Your task to perform on an android device: Clear the cart on ebay. Add "apple airpods" to the cart on ebay, then select checkout. Image 0: 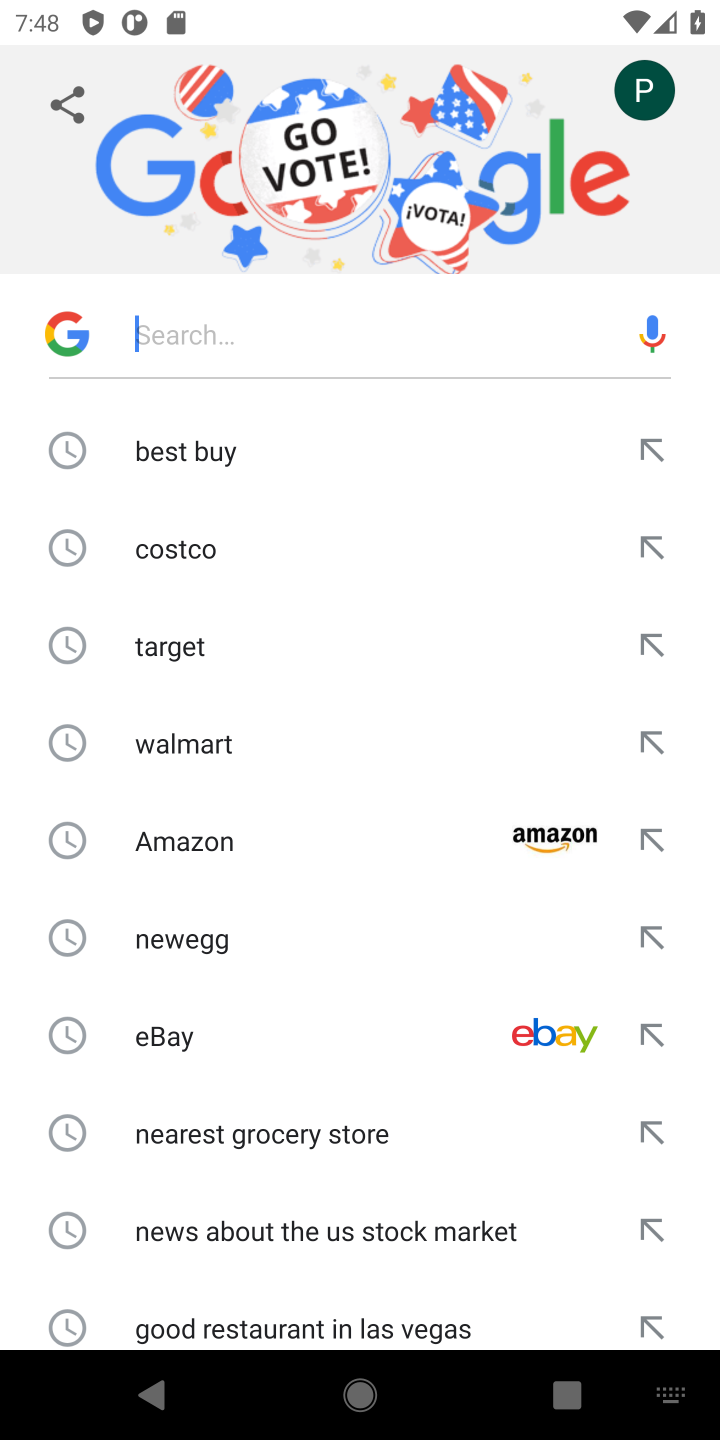
Step 0: click (183, 1030)
Your task to perform on an android device: Clear the cart on ebay. Add "apple airpods" to the cart on ebay, then select checkout. Image 1: 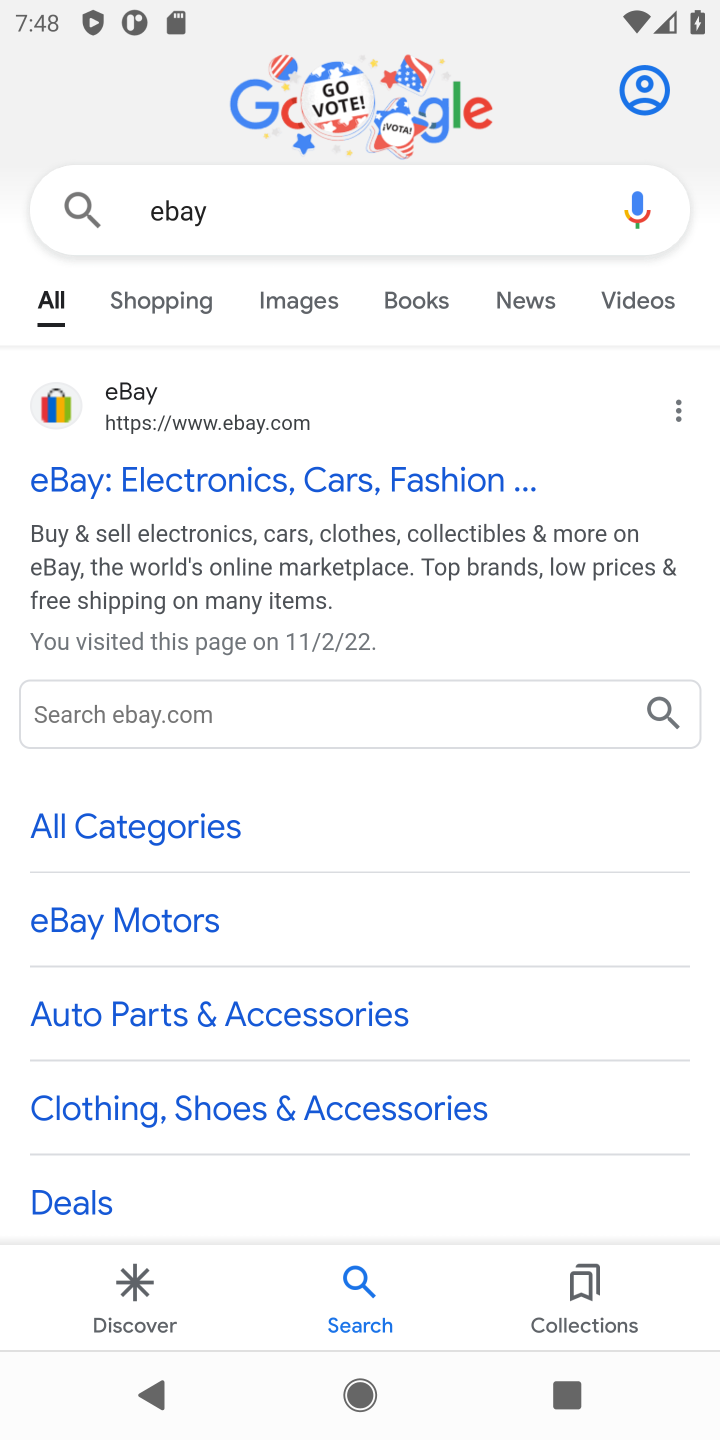
Step 1: click (385, 473)
Your task to perform on an android device: Clear the cart on ebay. Add "apple airpods" to the cart on ebay, then select checkout. Image 2: 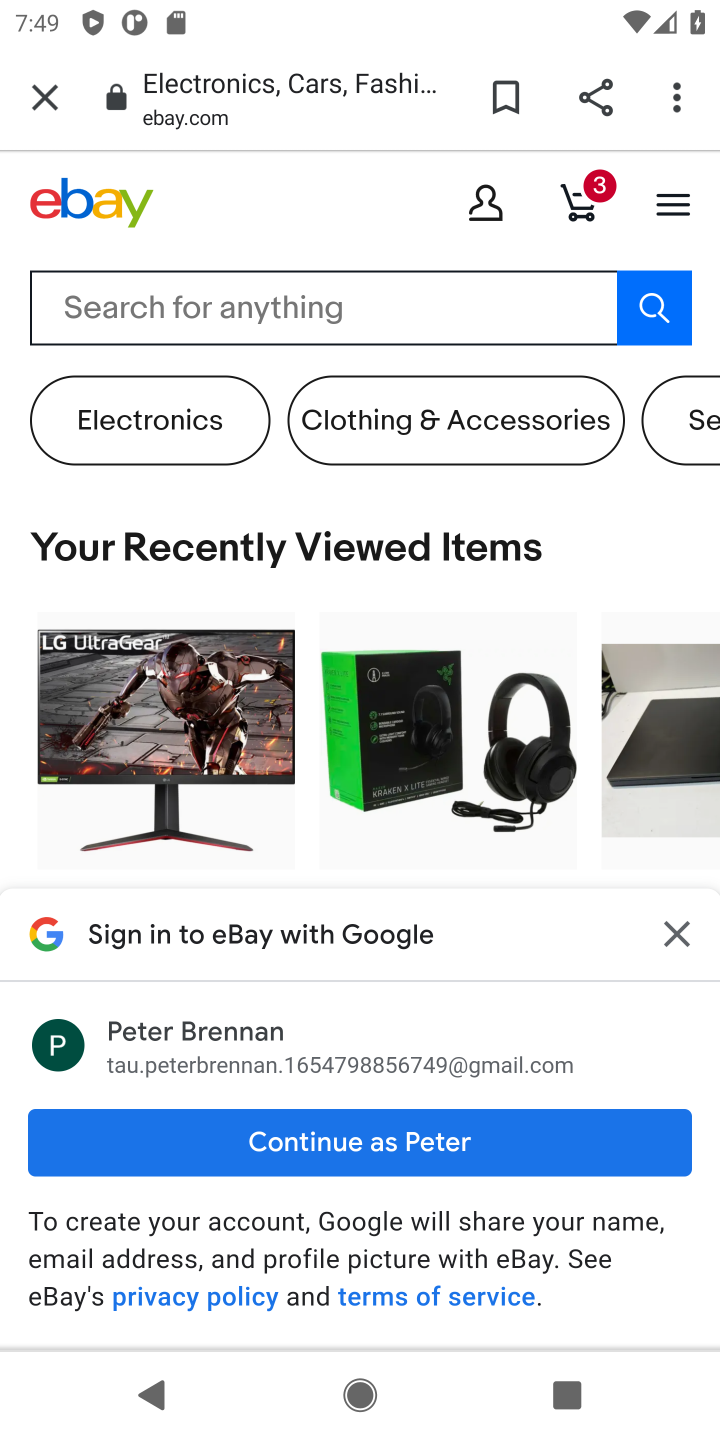
Step 2: click (592, 198)
Your task to perform on an android device: Clear the cart on ebay. Add "apple airpods" to the cart on ebay, then select checkout. Image 3: 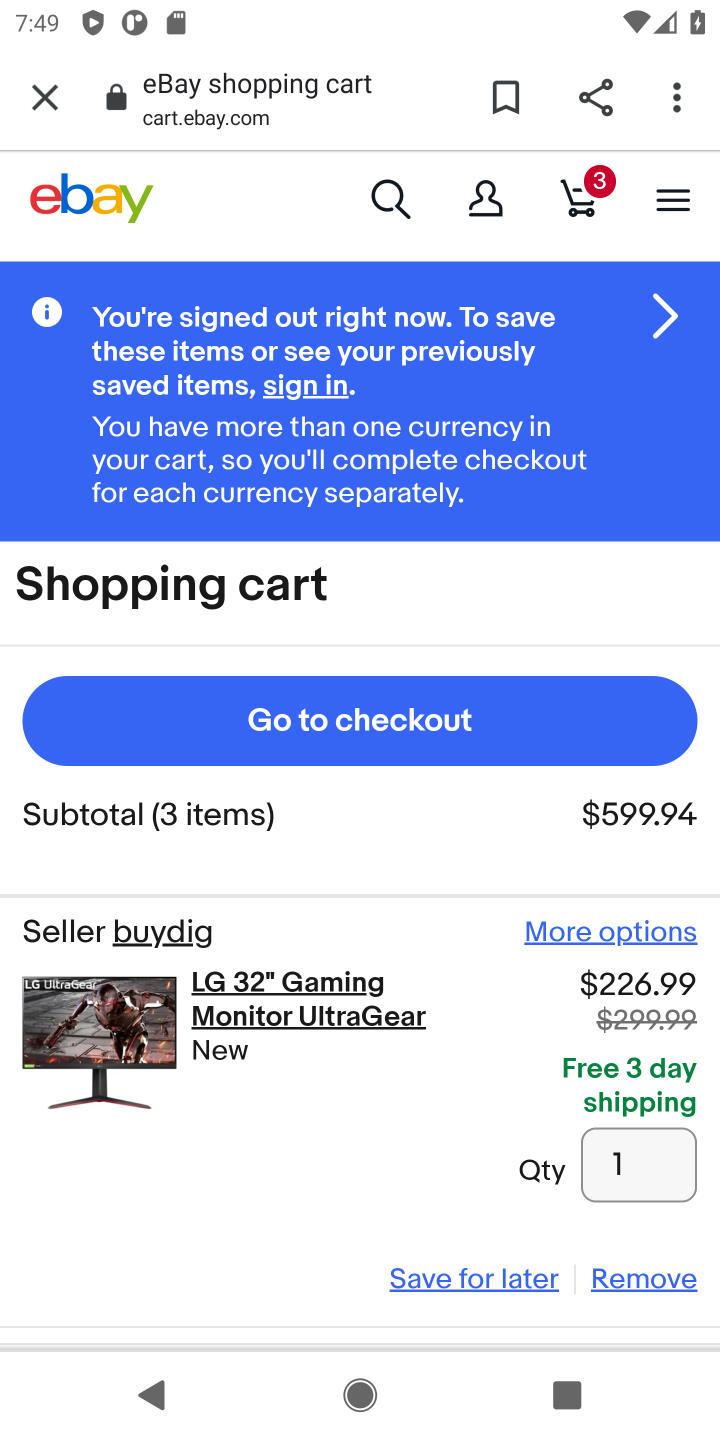
Step 3: click (651, 1271)
Your task to perform on an android device: Clear the cart on ebay. Add "apple airpods" to the cart on ebay, then select checkout. Image 4: 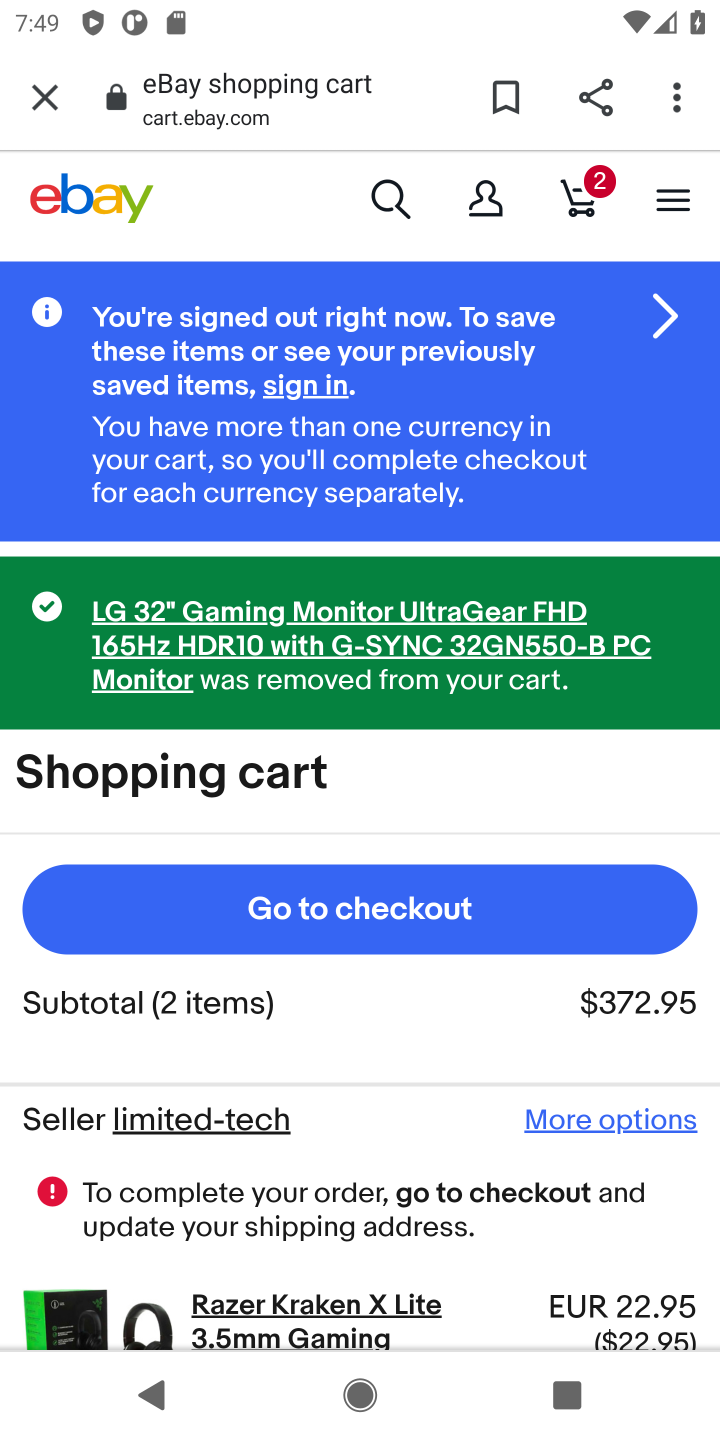
Step 4: drag from (498, 1194) to (630, 222)
Your task to perform on an android device: Clear the cart on ebay. Add "apple airpods" to the cart on ebay, then select checkout. Image 5: 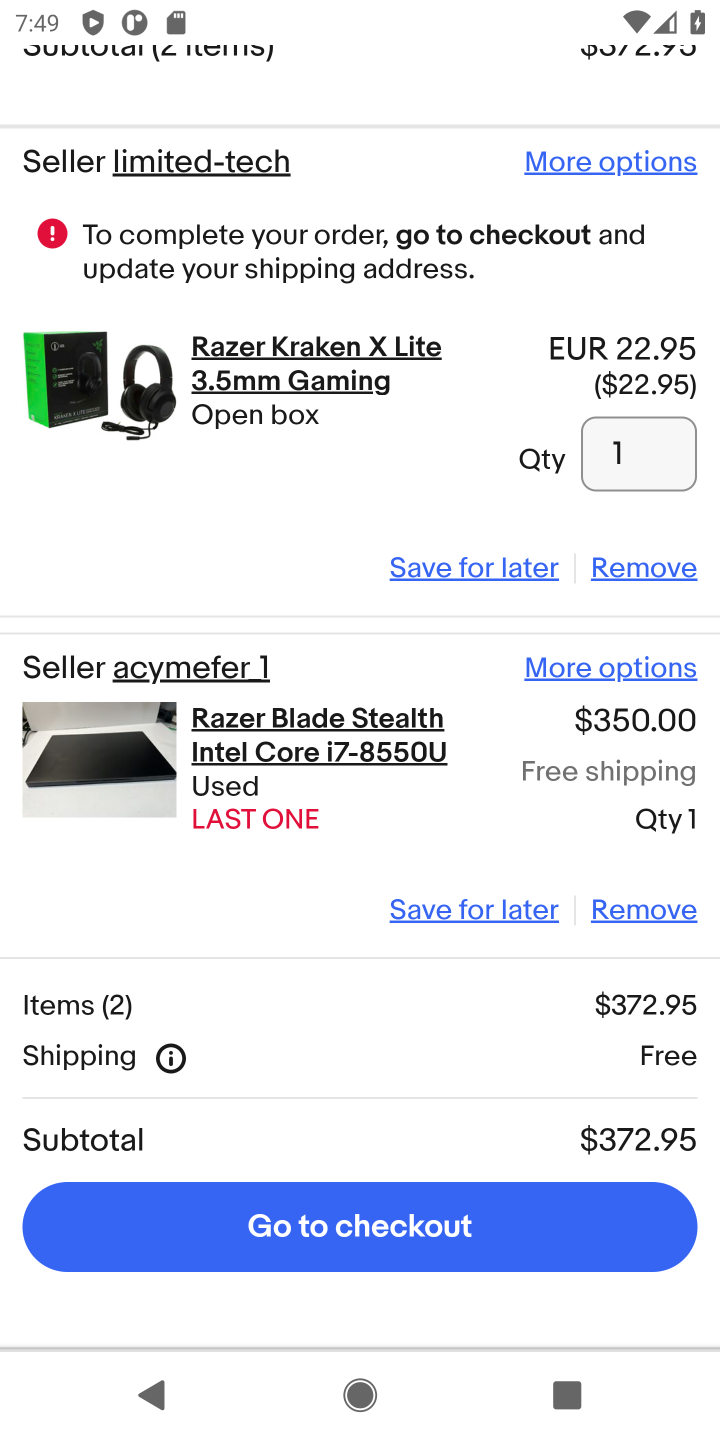
Step 5: click (645, 567)
Your task to perform on an android device: Clear the cart on ebay. Add "apple airpods" to the cart on ebay, then select checkout. Image 6: 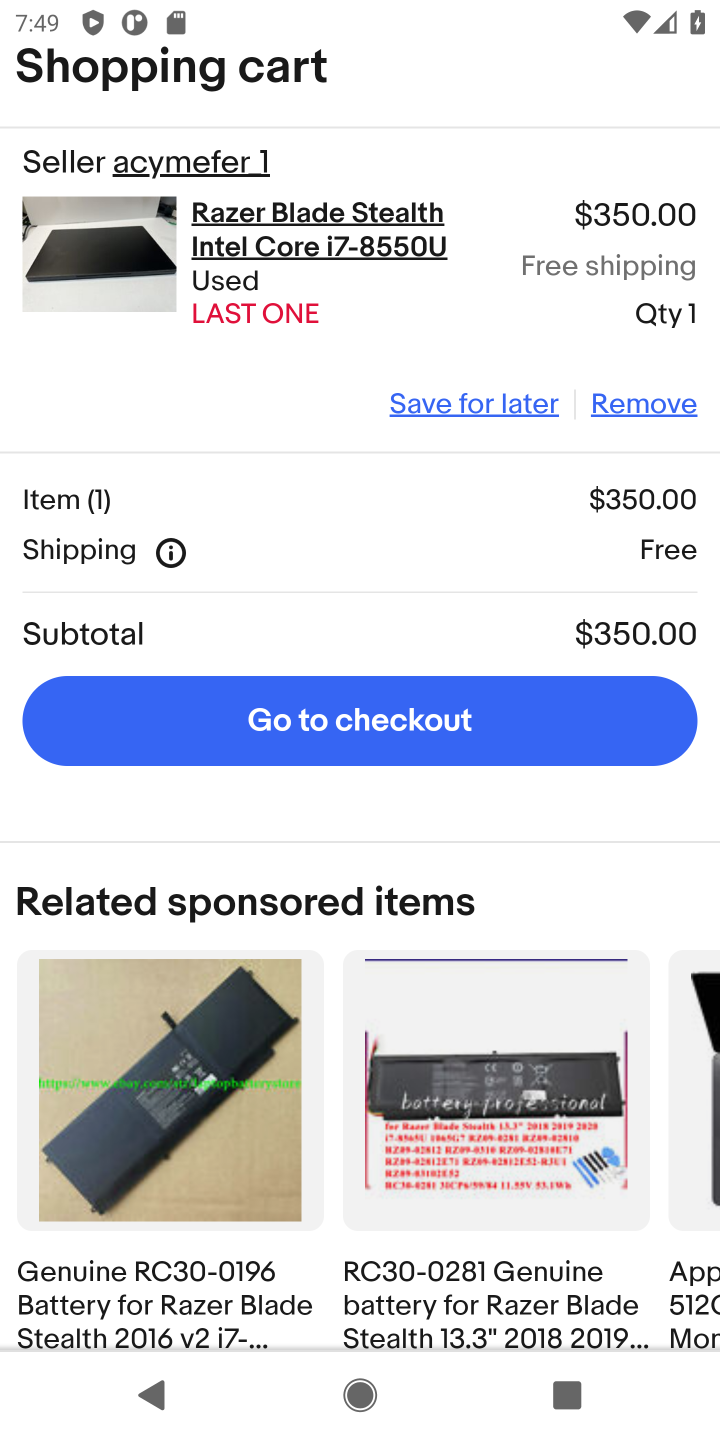
Step 6: click (660, 401)
Your task to perform on an android device: Clear the cart on ebay. Add "apple airpods" to the cart on ebay, then select checkout. Image 7: 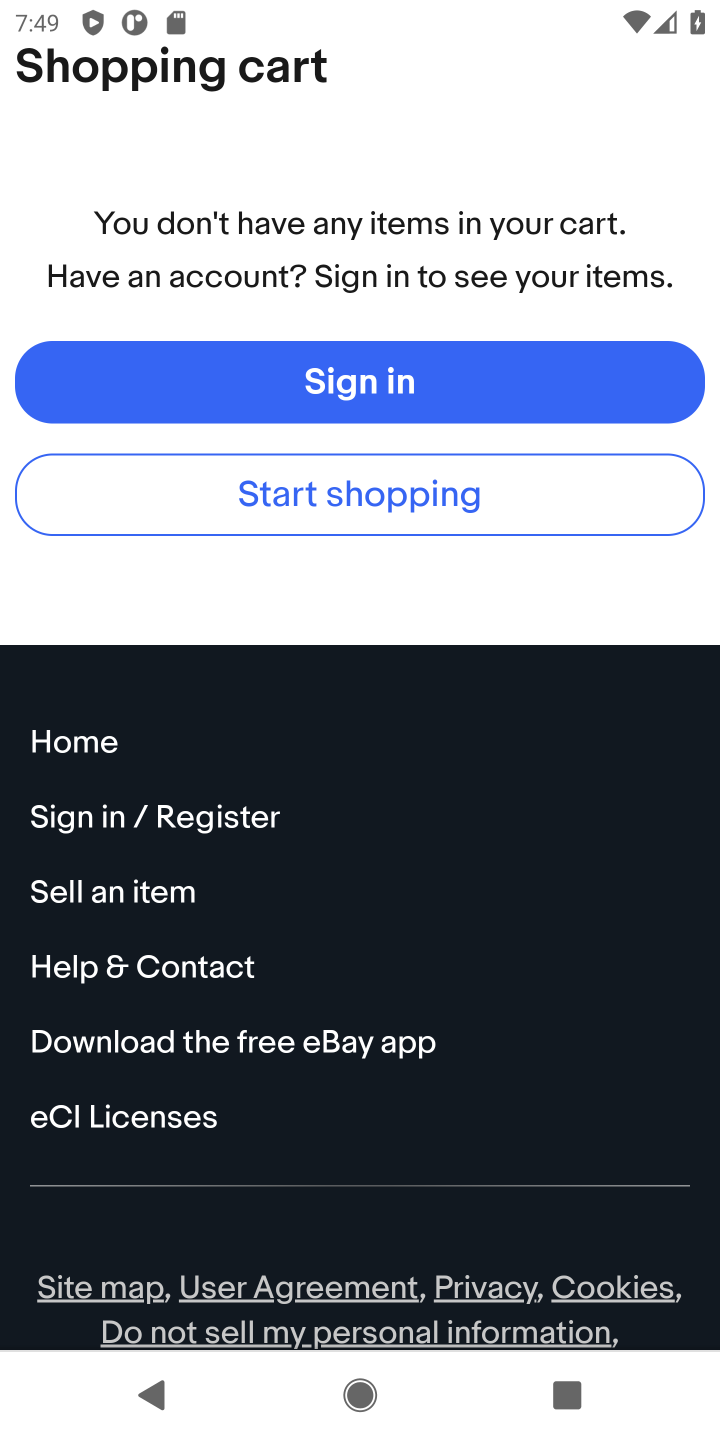
Step 7: drag from (441, 191) to (424, 1131)
Your task to perform on an android device: Clear the cart on ebay. Add "apple airpods" to the cart on ebay, then select checkout. Image 8: 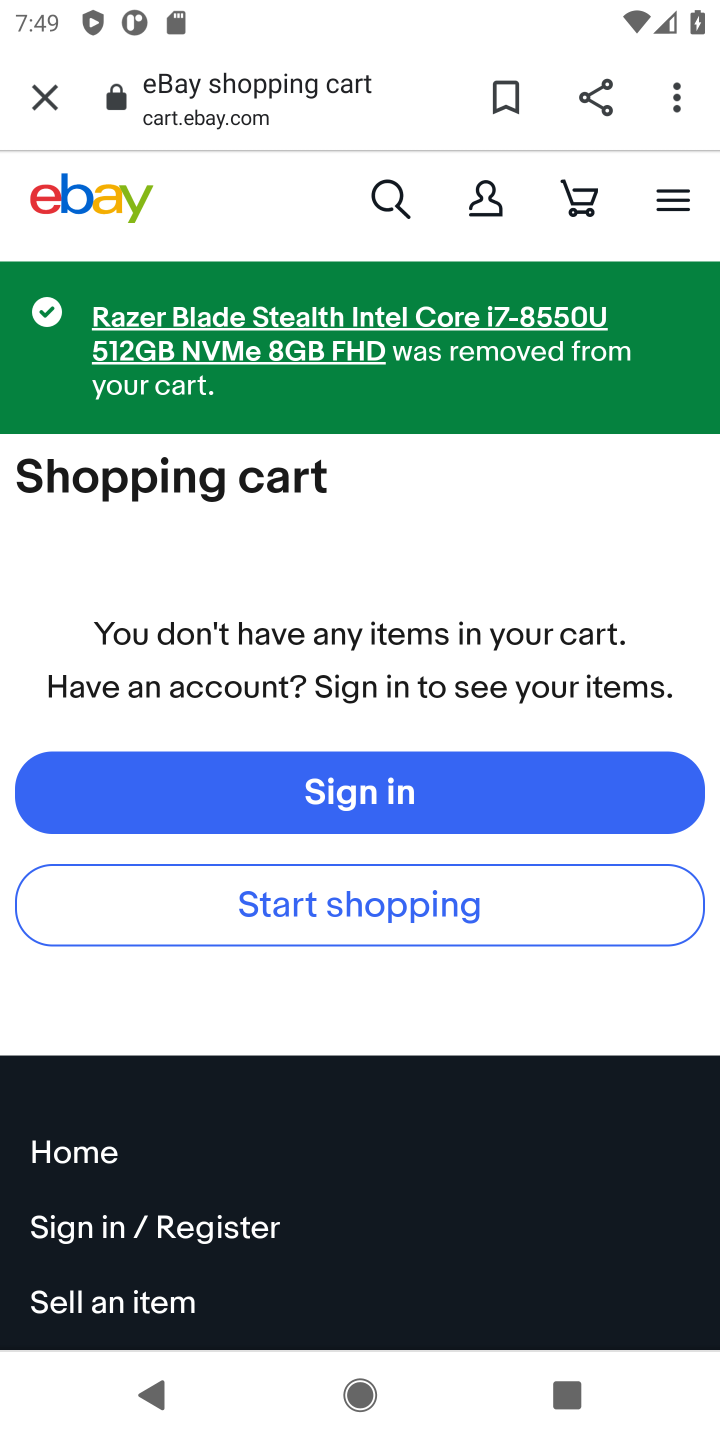
Step 8: click (381, 187)
Your task to perform on an android device: Clear the cart on ebay. Add "apple airpods" to the cart on ebay, then select checkout. Image 9: 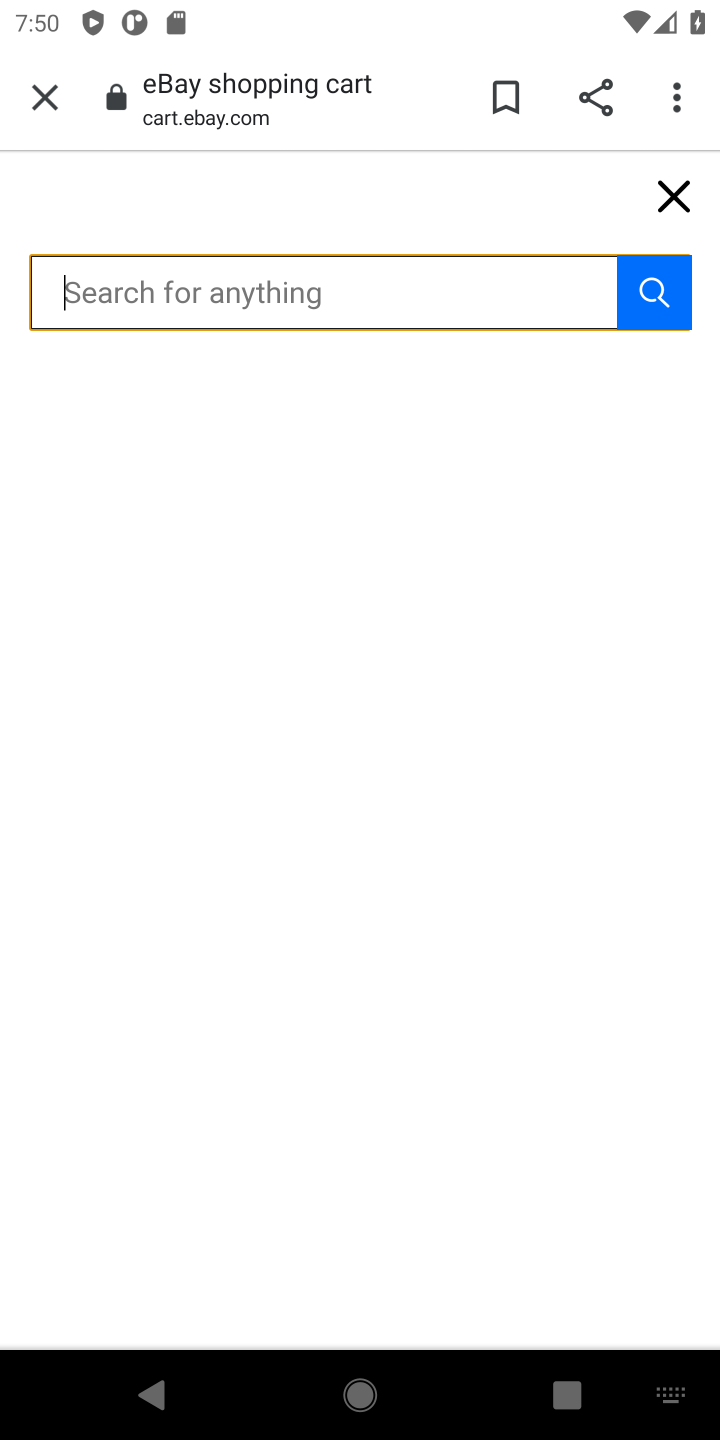
Step 9: type "apple airpods"
Your task to perform on an android device: Clear the cart on ebay. Add "apple airpods" to the cart on ebay, then select checkout. Image 10: 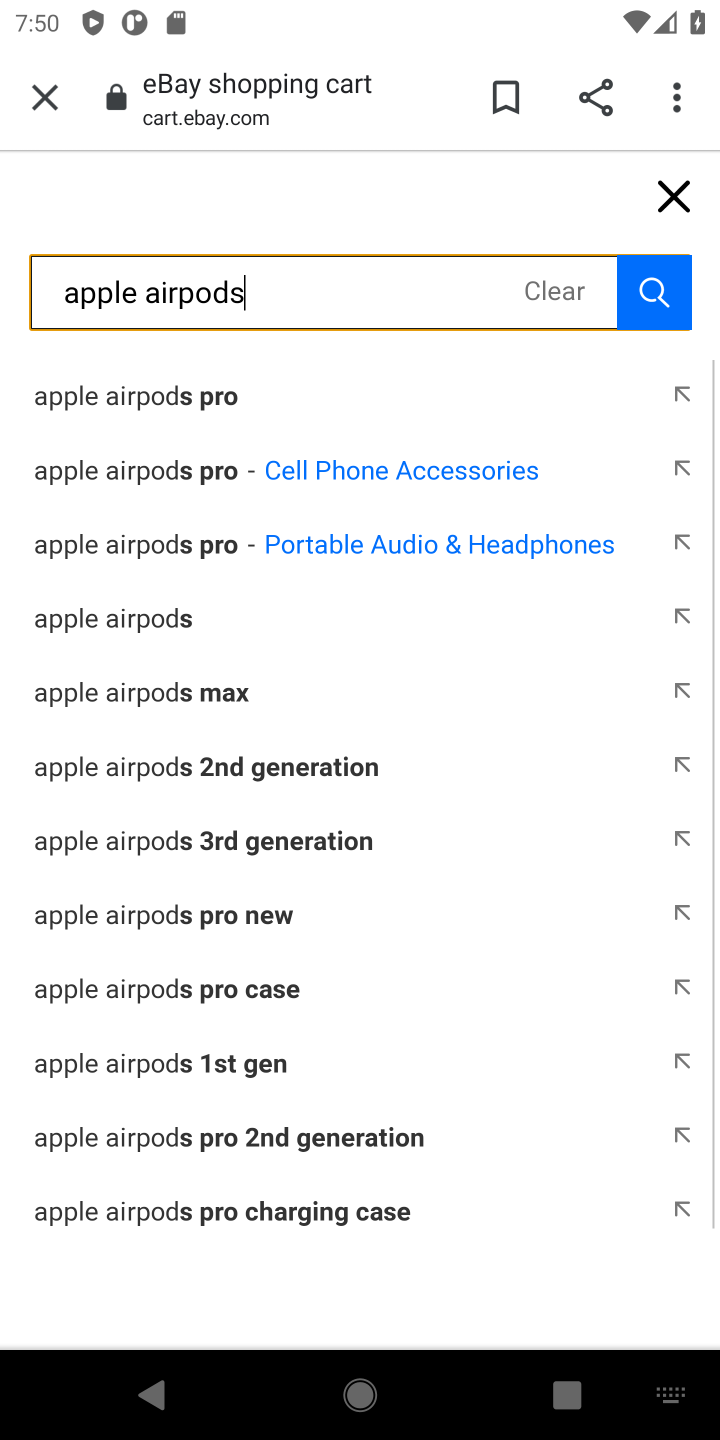
Step 10: press enter
Your task to perform on an android device: Clear the cart on ebay. Add "apple airpods" to the cart on ebay, then select checkout. Image 11: 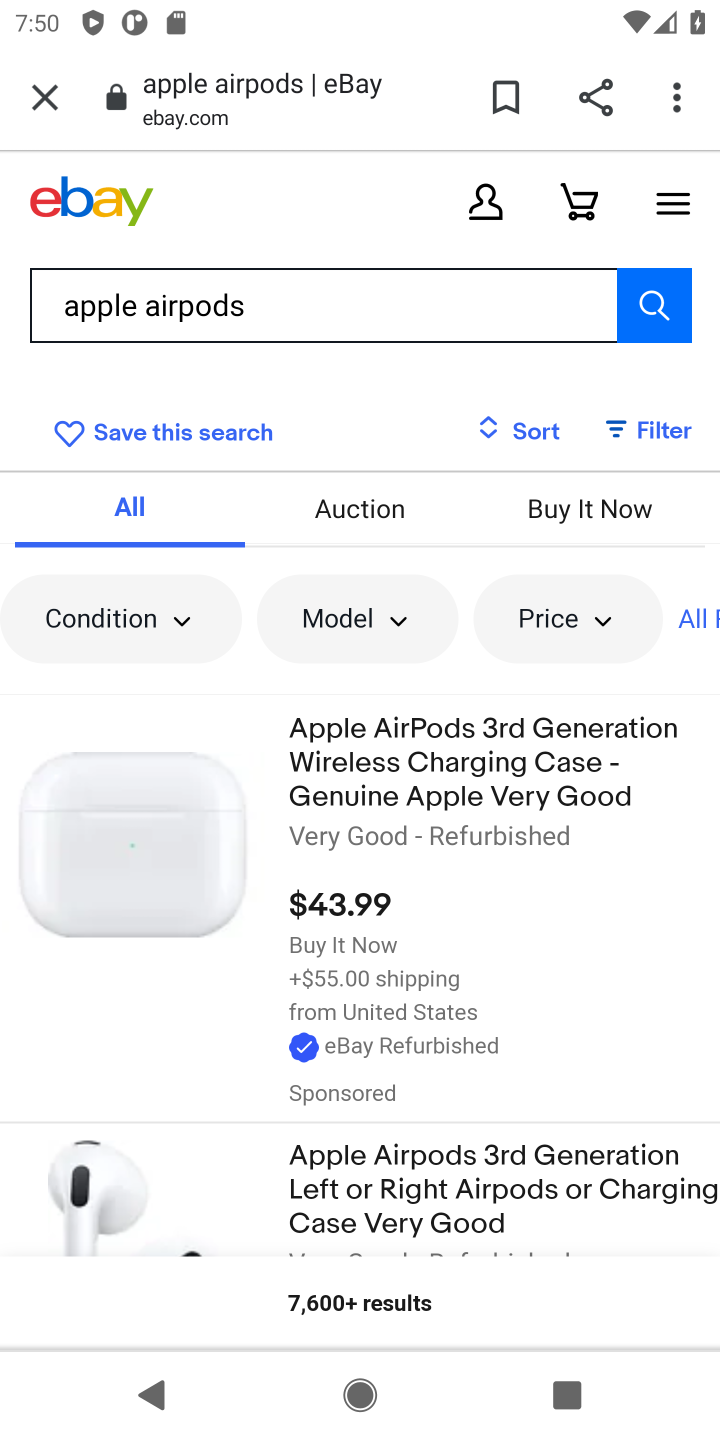
Step 11: click (467, 806)
Your task to perform on an android device: Clear the cart on ebay. Add "apple airpods" to the cart on ebay, then select checkout. Image 12: 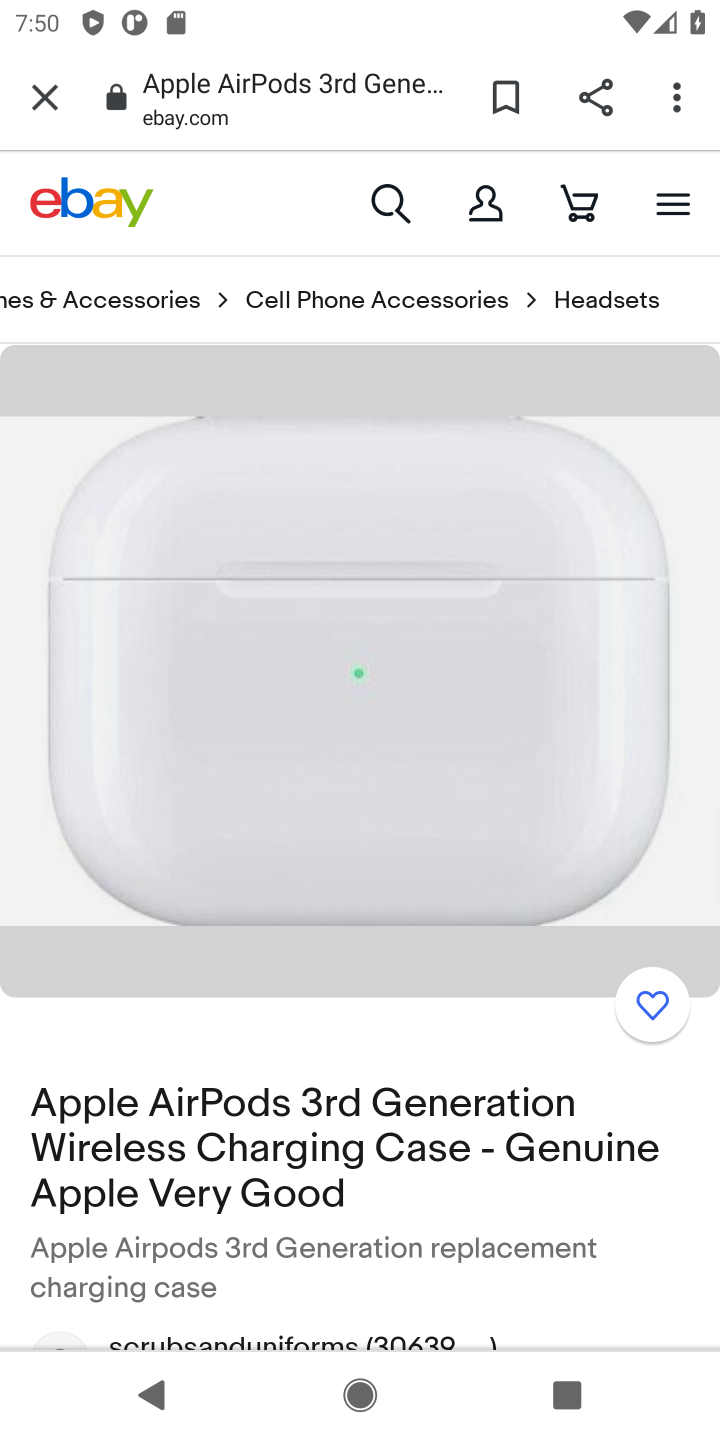
Step 12: drag from (237, 1160) to (479, 240)
Your task to perform on an android device: Clear the cart on ebay. Add "apple airpods" to the cart on ebay, then select checkout. Image 13: 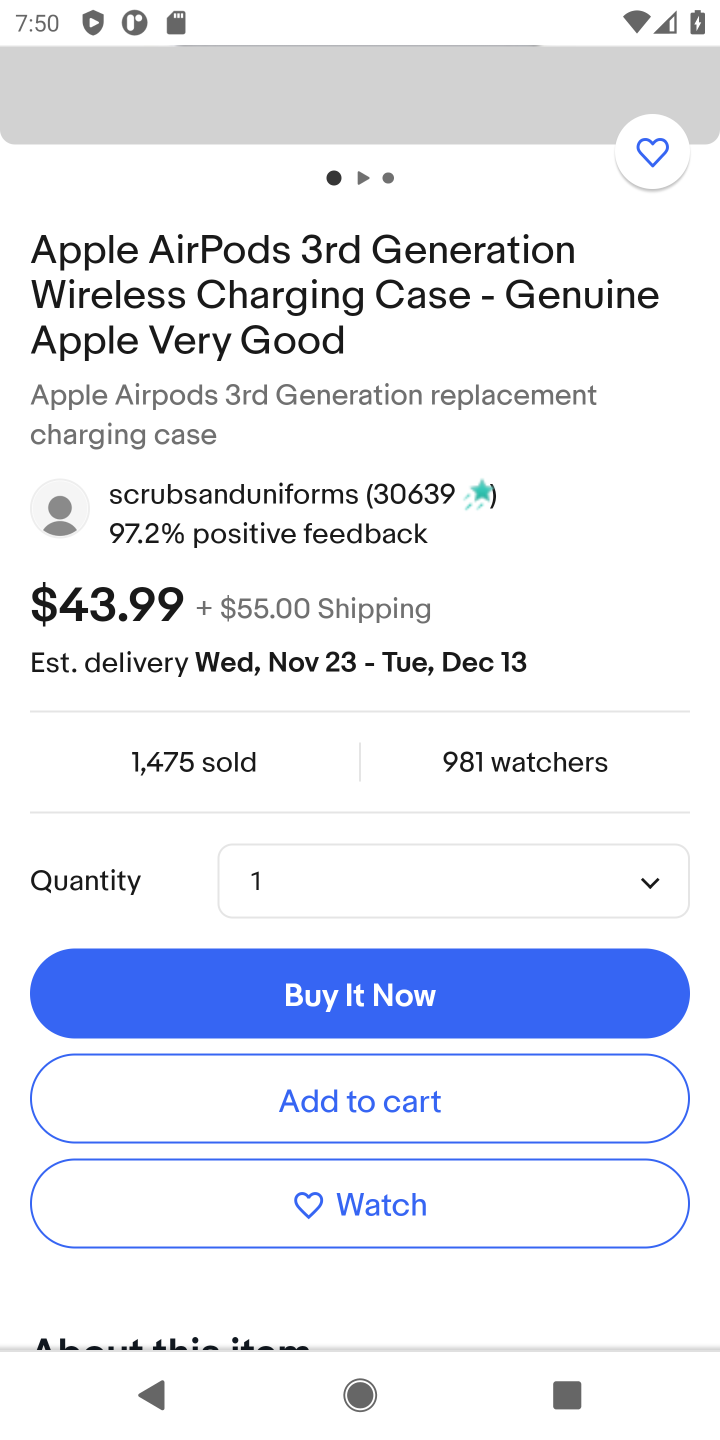
Step 13: click (407, 1097)
Your task to perform on an android device: Clear the cart on ebay. Add "apple airpods" to the cart on ebay, then select checkout. Image 14: 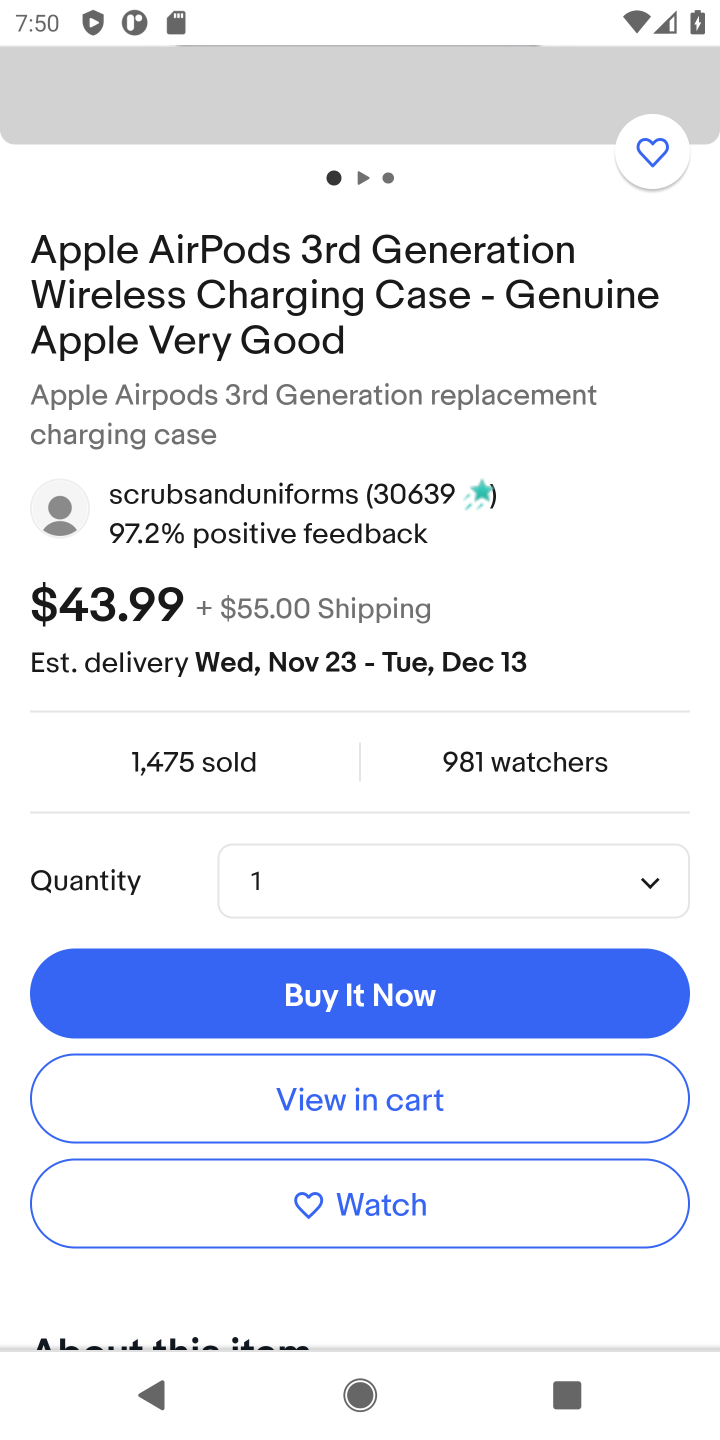
Step 14: click (369, 1104)
Your task to perform on an android device: Clear the cart on ebay. Add "apple airpods" to the cart on ebay, then select checkout. Image 15: 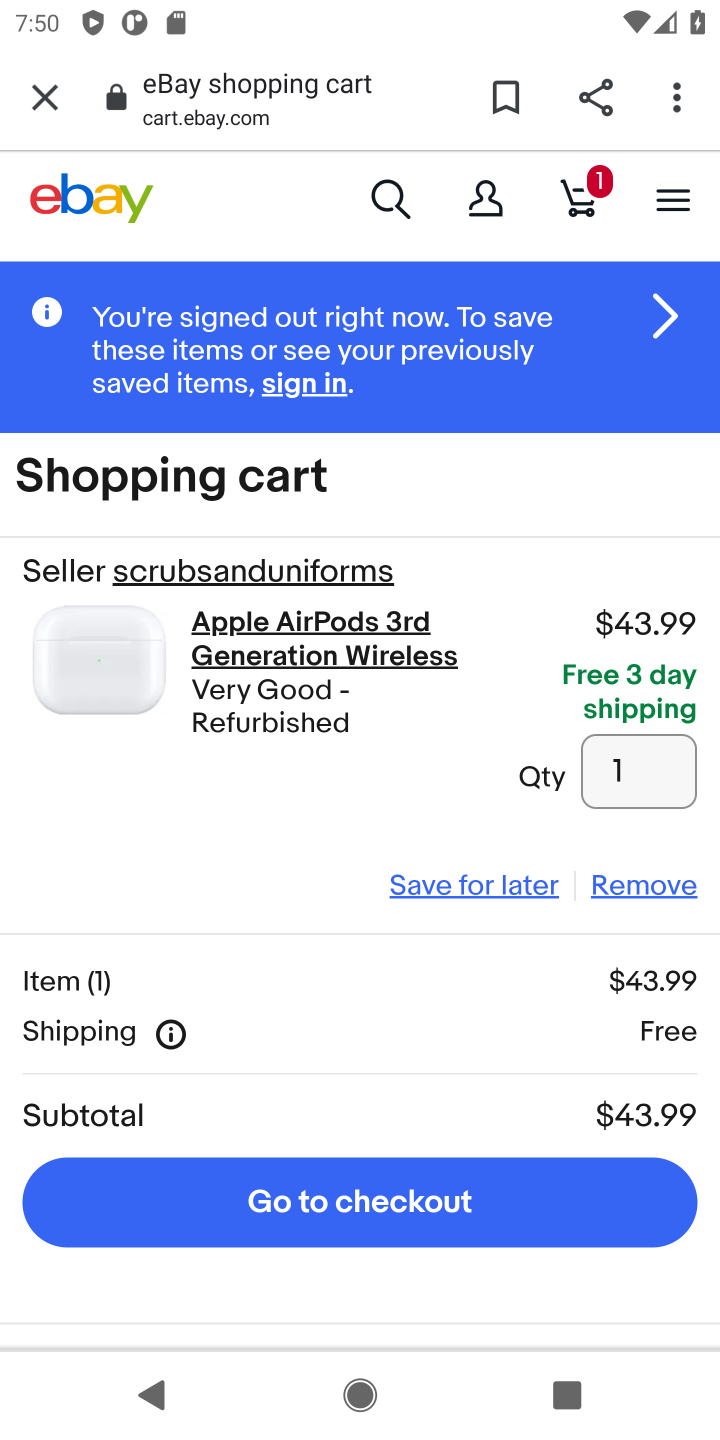
Step 15: click (432, 1193)
Your task to perform on an android device: Clear the cart on ebay. Add "apple airpods" to the cart on ebay, then select checkout. Image 16: 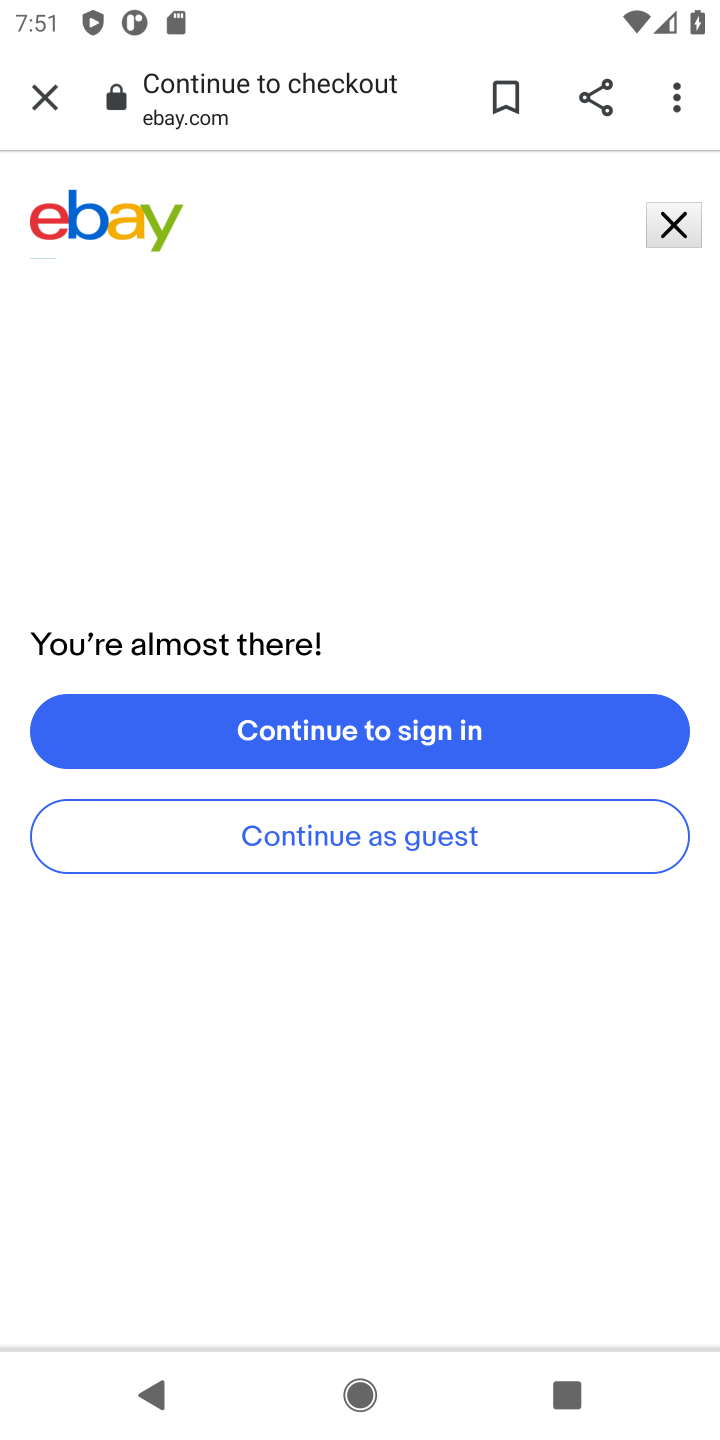
Step 16: task complete